Your task to perform on an android device: Open Youtube and go to the subscriptions tab Image 0: 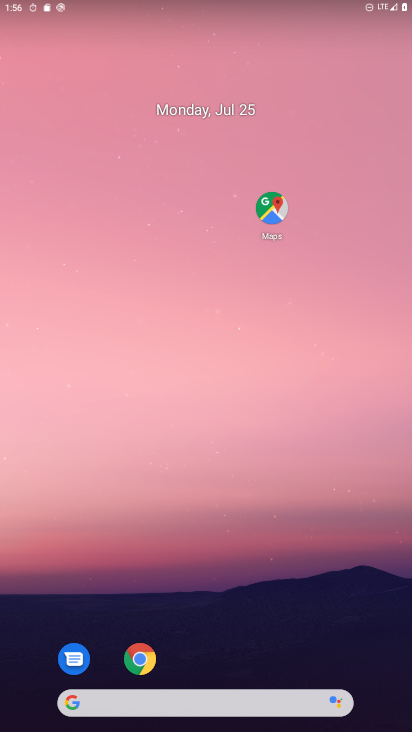
Step 0: drag from (206, 270) to (267, 92)
Your task to perform on an android device: Open Youtube and go to the subscriptions tab Image 1: 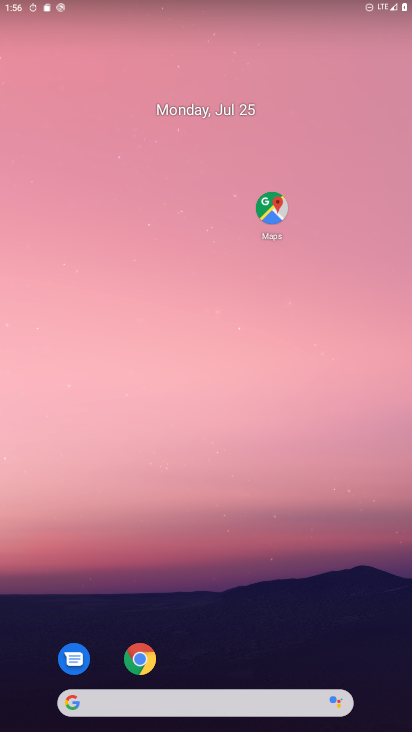
Step 1: drag from (17, 698) to (279, 8)
Your task to perform on an android device: Open Youtube and go to the subscriptions tab Image 2: 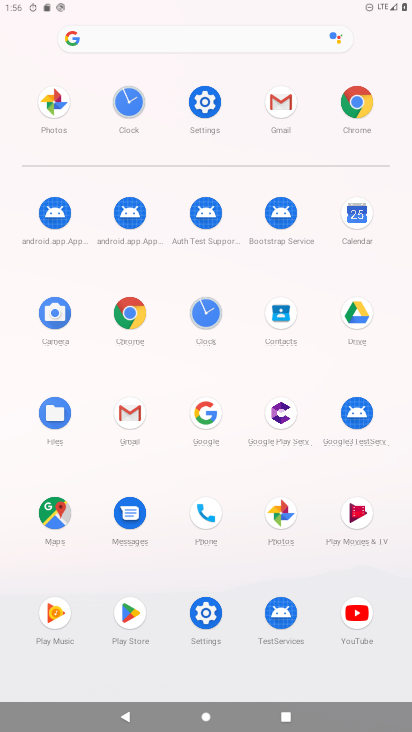
Step 2: click (364, 622)
Your task to perform on an android device: Open Youtube and go to the subscriptions tab Image 3: 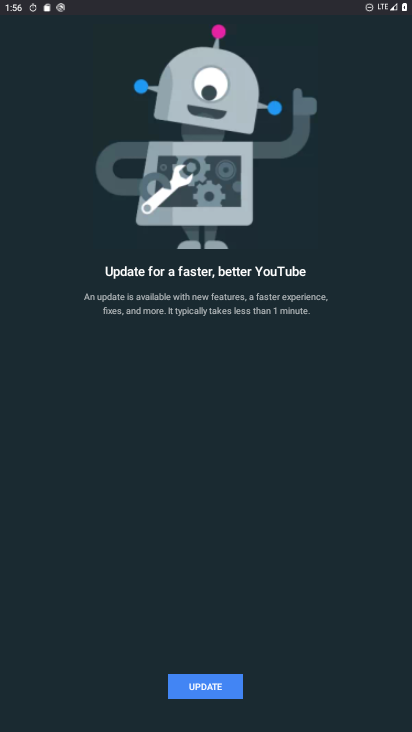
Step 3: click (192, 682)
Your task to perform on an android device: Open Youtube and go to the subscriptions tab Image 4: 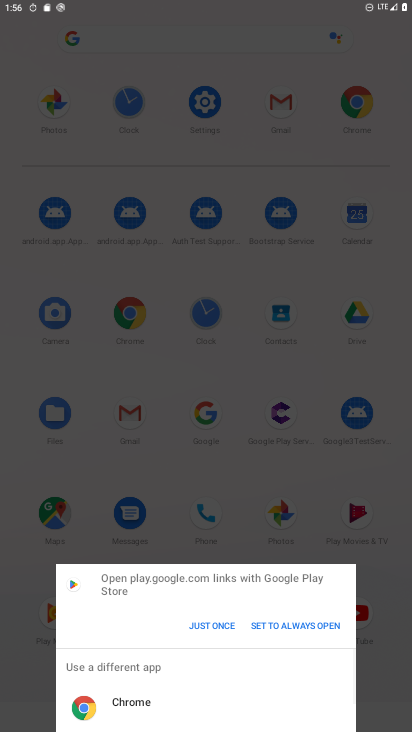
Step 4: click (194, 622)
Your task to perform on an android device: Open Youtube and go to the subscriptions tab Image 5: 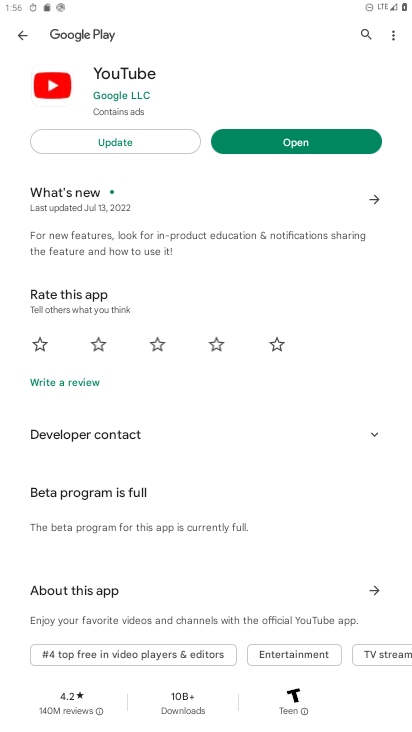
Step 5: click (265, 147)
Your task to perform on an android device: Open Youtube and go to the subscriptions tab Image 6: 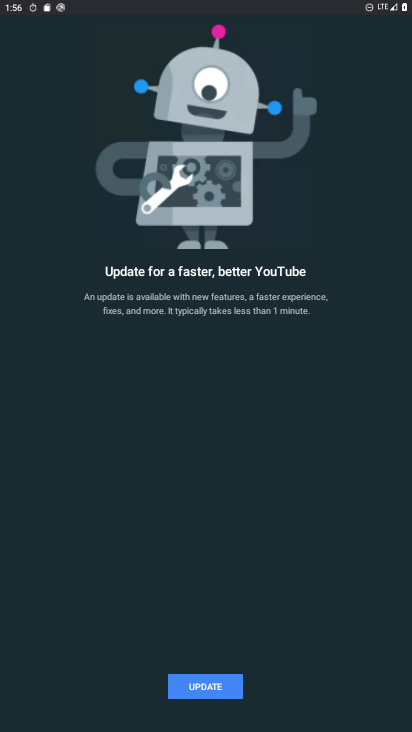
Step 6: task complete